Your task to perform on an android device: change notifications settings Image 0: 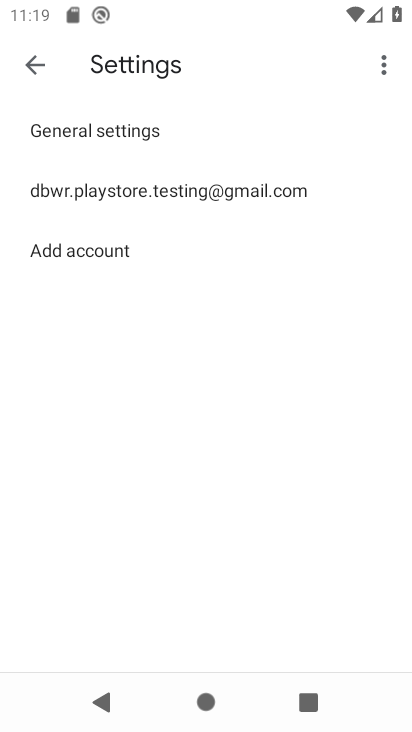
Step 0: press home button
Your task to perform on an android device: change notifications settings Image 1: 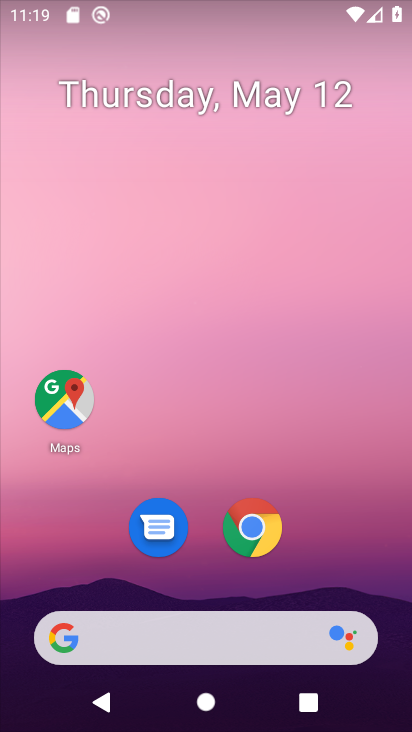
Step 1: drag from (281, 556) to (350, 25)
Your task to perform on an android device: change notifications settings Image 2: 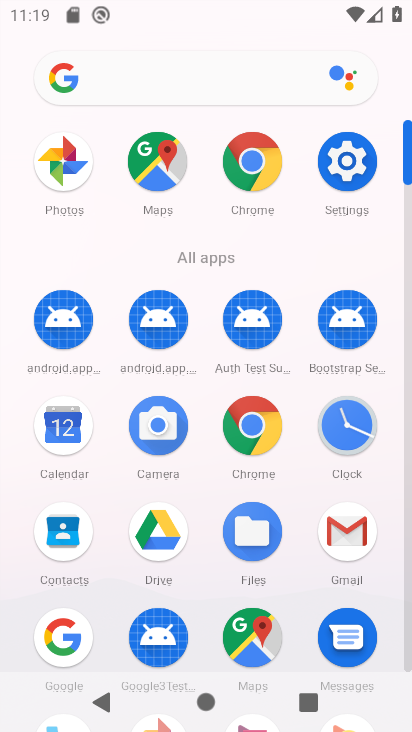
Step 2: click (356, 188)
Your task to perform on an android device: change notifications settings Image 3: 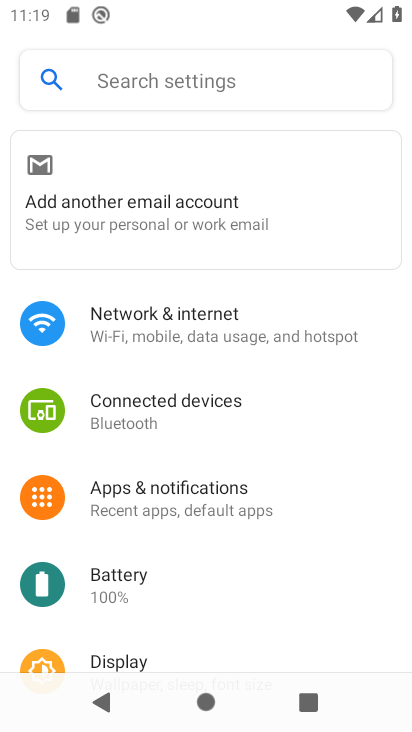
Step 3: click (186, 516)
Your task to perform on an android device: change notifications settings Image 4: 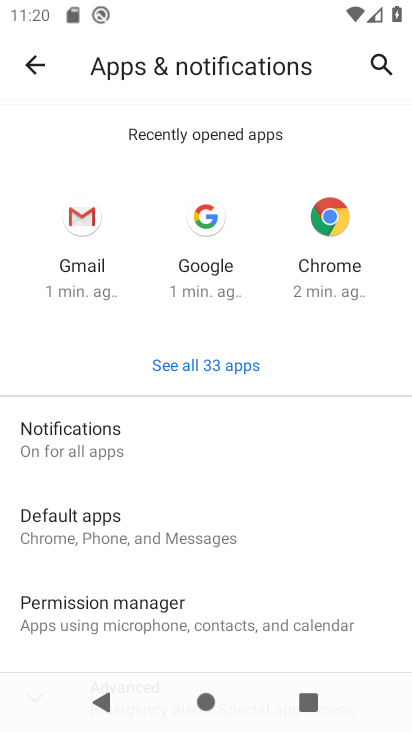
Step 4: click (101, 446)
Your task to perform on an android device: change notifications settings Image 5: 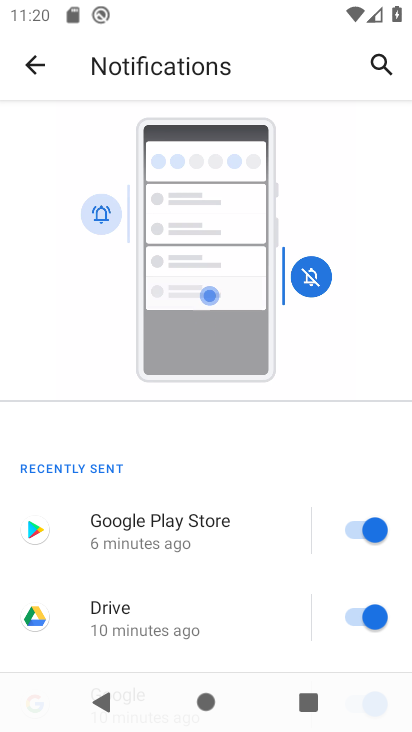
Step 5: drag from (102, 608) to (183, 344)
Your task to perform on an android device: change notifications settings Image 6: 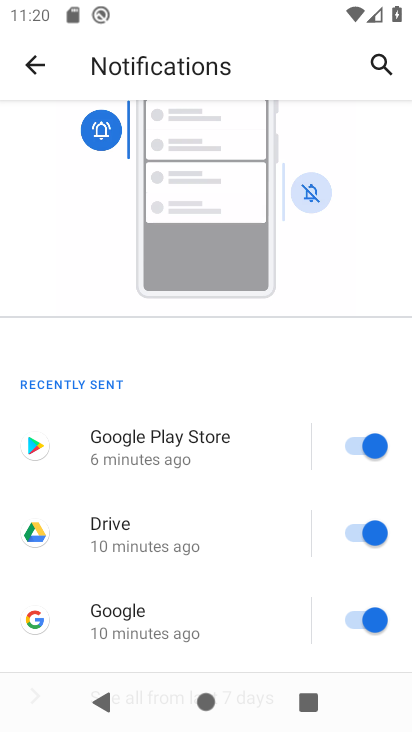
Step 6: drag from (148, 594) to (174, 293)
Your task to perform on an android device: change notifications settings Image 7: 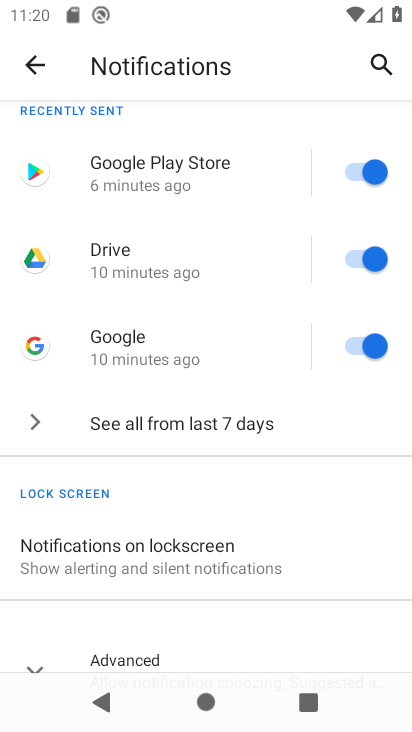
Step 7: click (181, 560)
Your task to perform on an android device: change notifications settings Image 8: 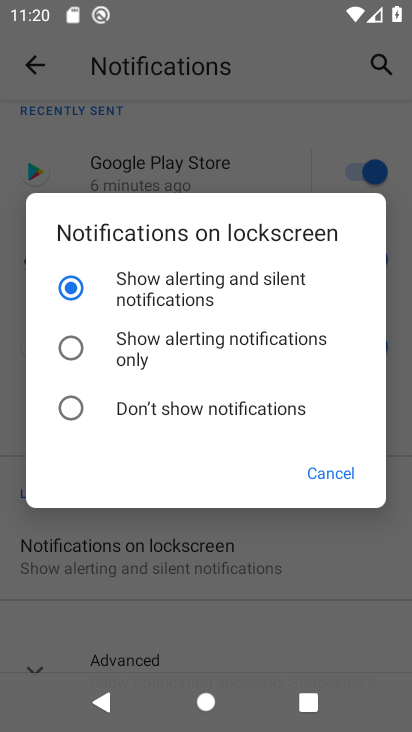
Step 8: click (37, 399)
Your task to perform on an android device: change notifications settings Image 9: 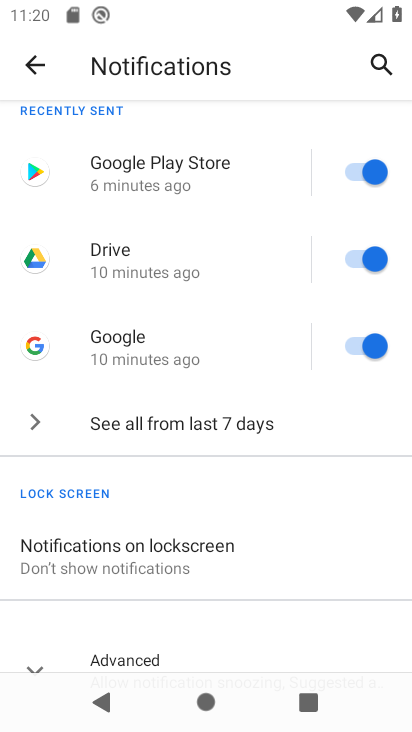
Step 9: task complete